Your task to perform on an android device: Open Chrome and go to the settings page Image 0: 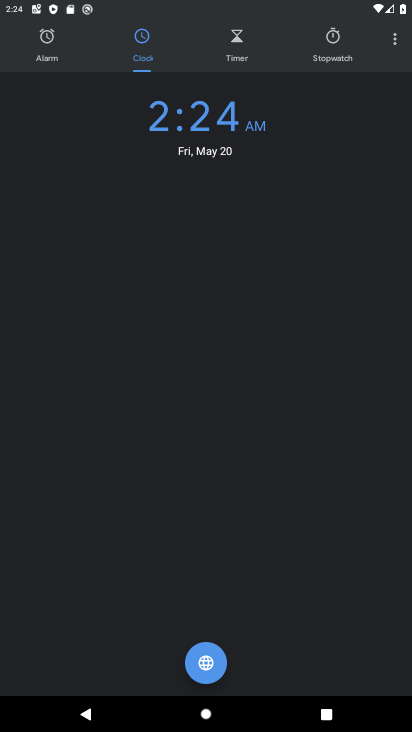
Step 0: press back button
Your task to perform on an android device: Open Chrome and go to the settings page Image 1: 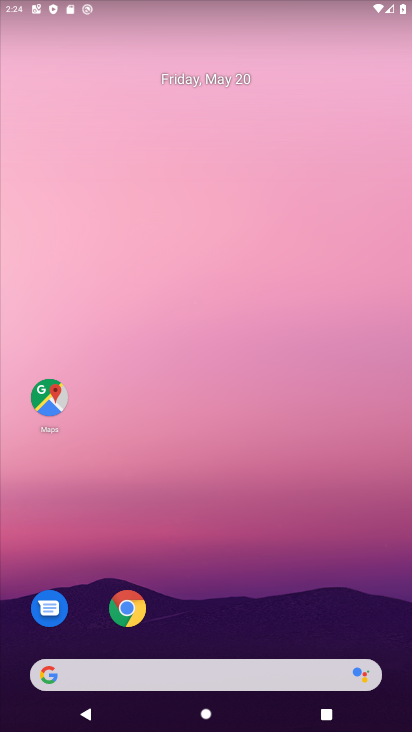
Step 1: click (124, 611)
Your task to perform on an android device: Open Chrome and go to the settings page Image 2: 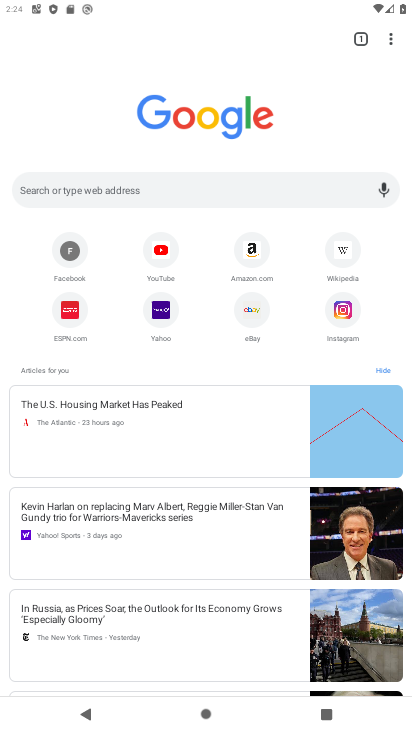
Step 2: task complete